Your task to perform on an android device: What's the weather? Image 0: 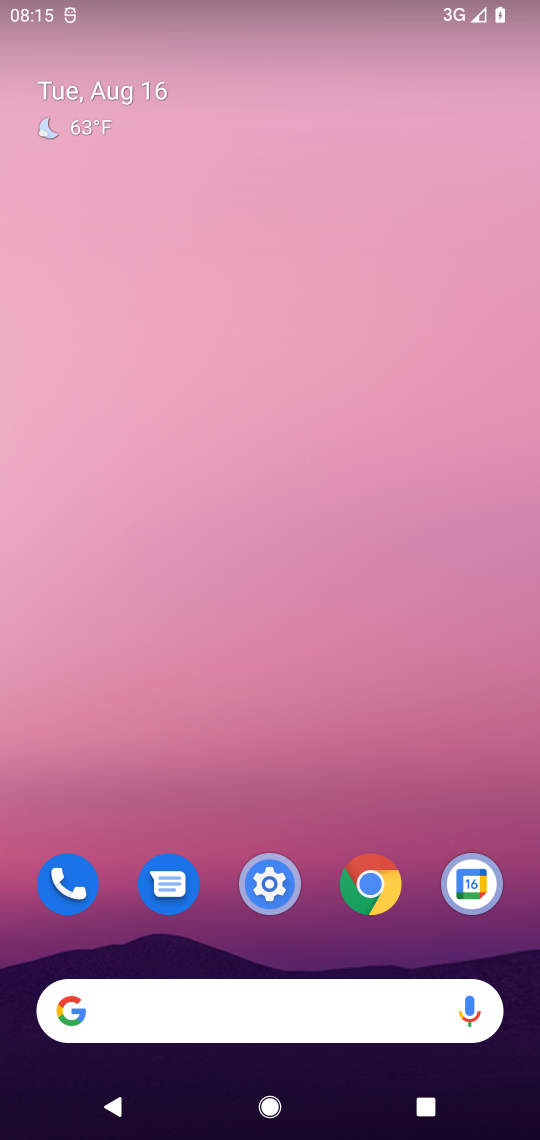
Step 0: press home button
Your task to perform on an android device: What's the weather? Image 1: 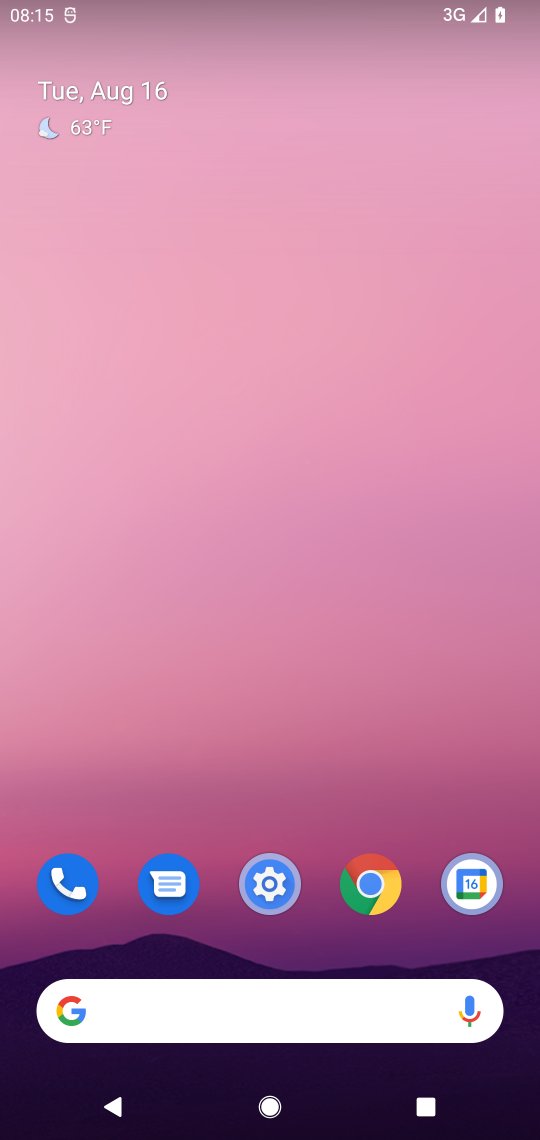
Step 1: click (68, 1013)
Your task to perform on an android device: What's the weather? Image 2: 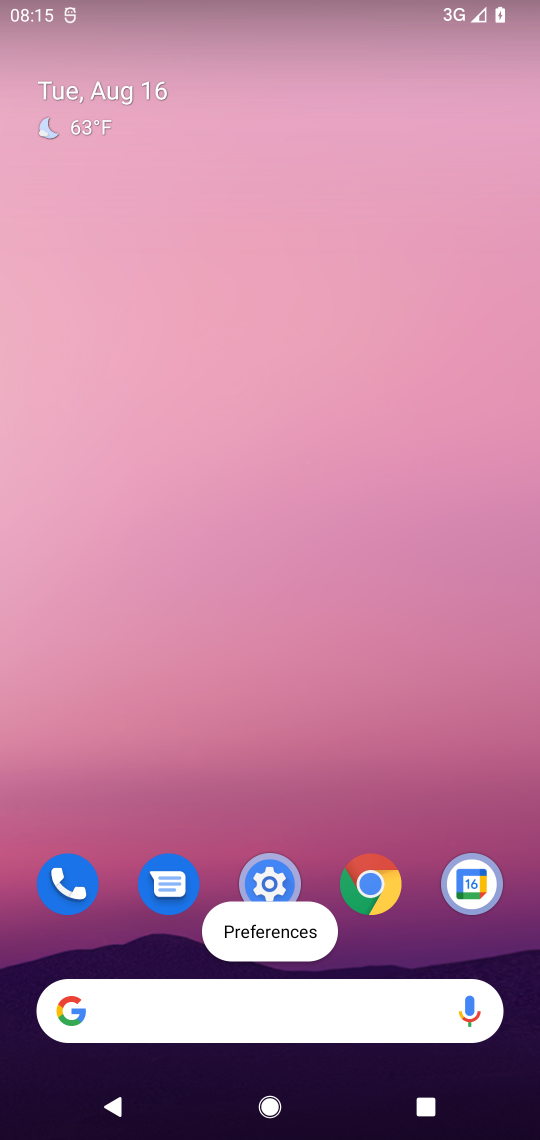
Step 2: click (68, 1013)
Your task to perform on an android device: What's the weather? Image 3: 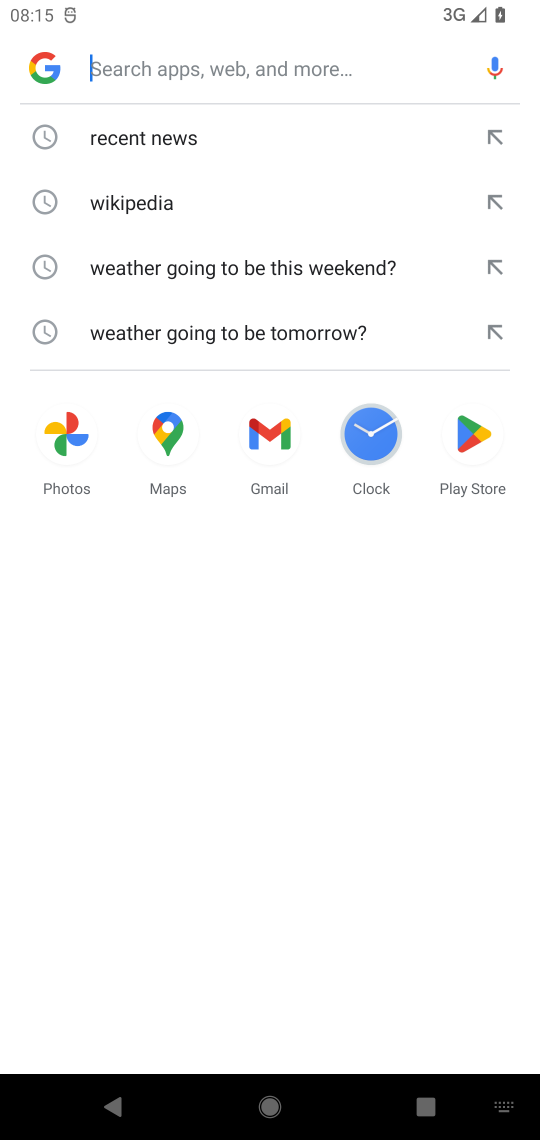
Step 3: type " weather"
Your task to perform on an android device: What's the weather? Image 4: 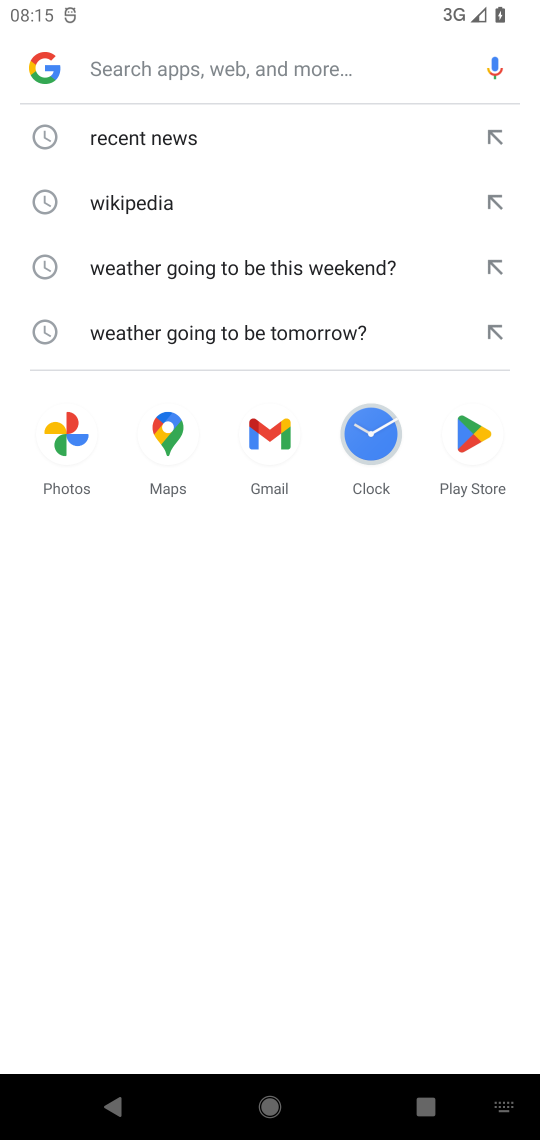
Step 4: click (183, 69)
Your task to perform on an android device: What's the weather? Image 5: 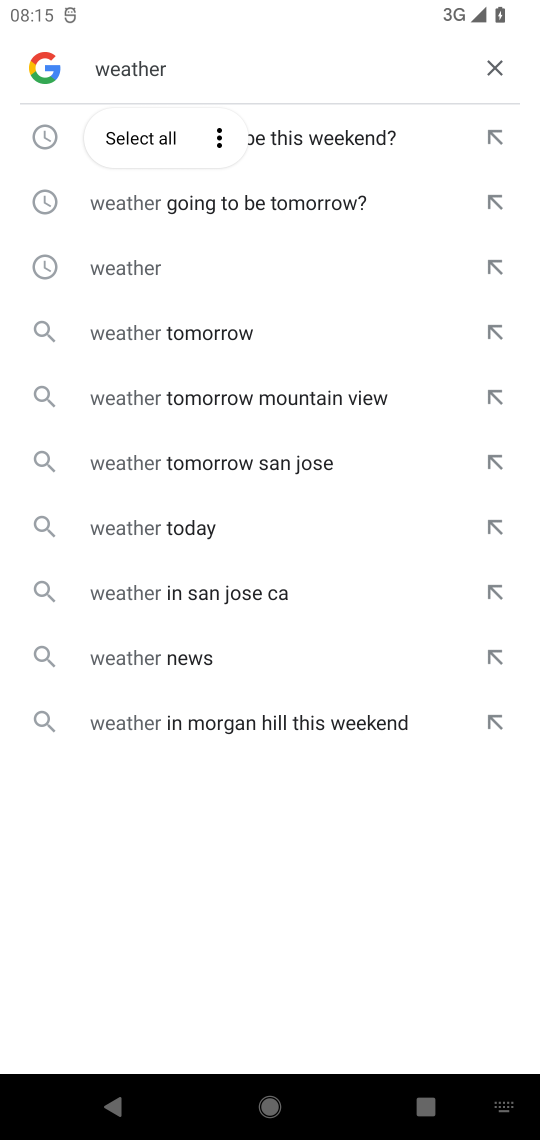
Step 5: press enter
Your task to perform on an android device: What's the weather? Image 6: 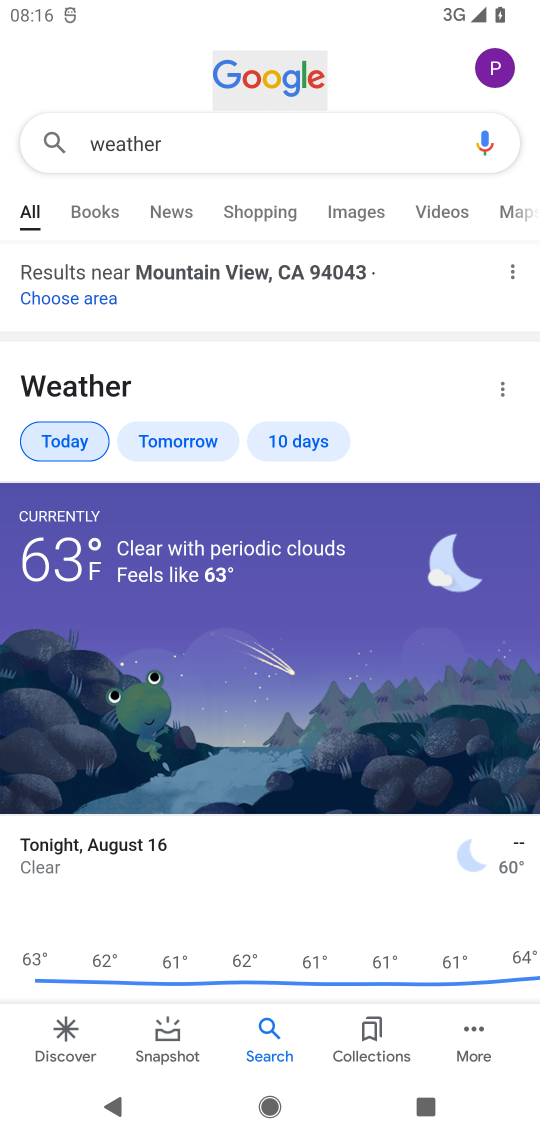
Step 6: task complete